Your task to perform on an android device: Go to wifi settings Image 0: 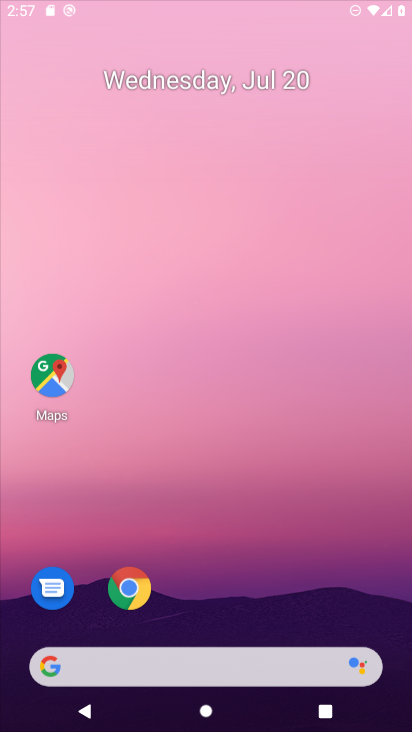
Step 0: click (257, 419)
Your task to perform on an android device: Go to wifi settings Image 1: 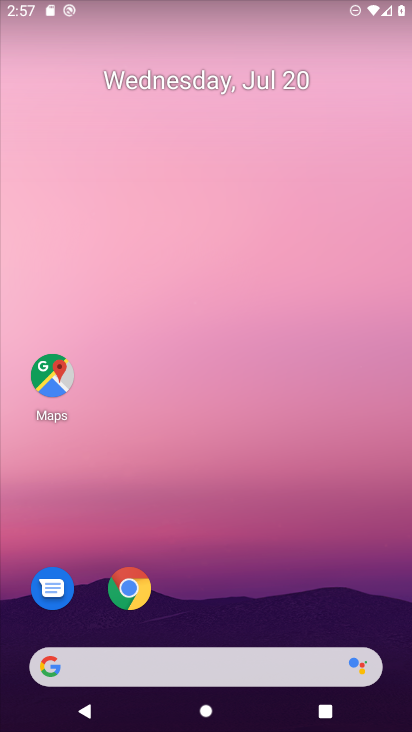
Step 1: drag from (228, 635) to (268, 141)
Your task to perform on an android device: Go to wifi settings Image 2: 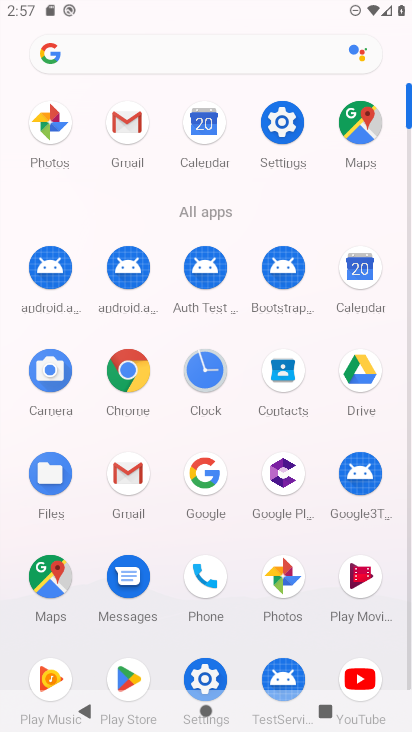
Step 2: click (275, 111)
Your task to perform on an android device: Go to wifi settings Image 3: 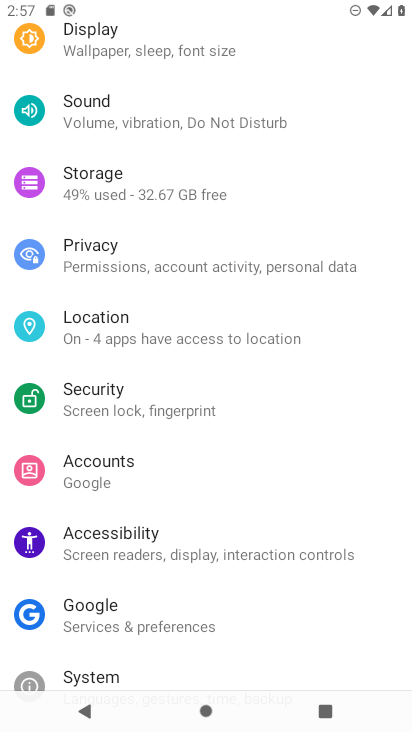
Step 3: drag from (275, 111) to (234, 665)
Your task to perform on an android device: Go to wifi settings Image 4: 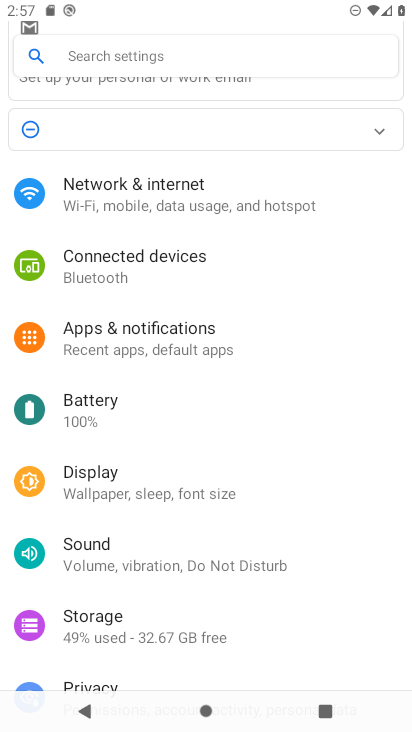
Step 4: click (153, 196)
Your task to perform on an android device: Go to wifi settings Image 5: 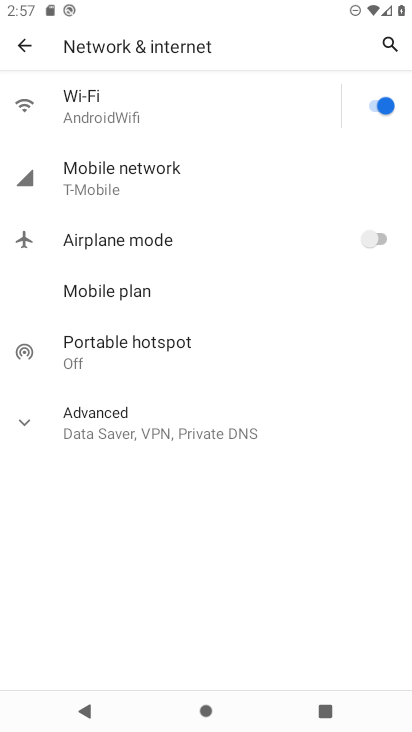
Step 5: click (83, 105)
Your task to perform on an android device: Go to wifi settings Image 6: 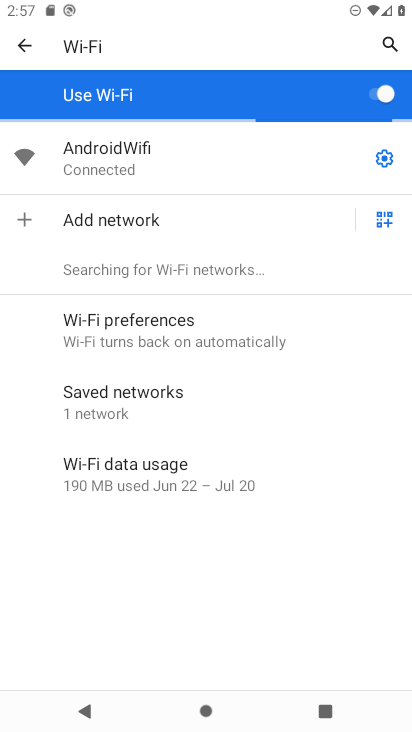
Step 6: task complete